Your task to perform on an android device: Go to Yahoo.com Image 0: 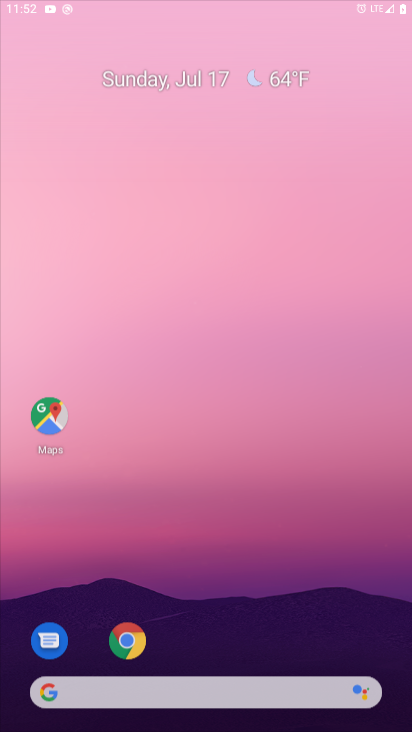
Step 0: press home button
Your task to perform on an android device: Go to Yahoo.com Image 1: 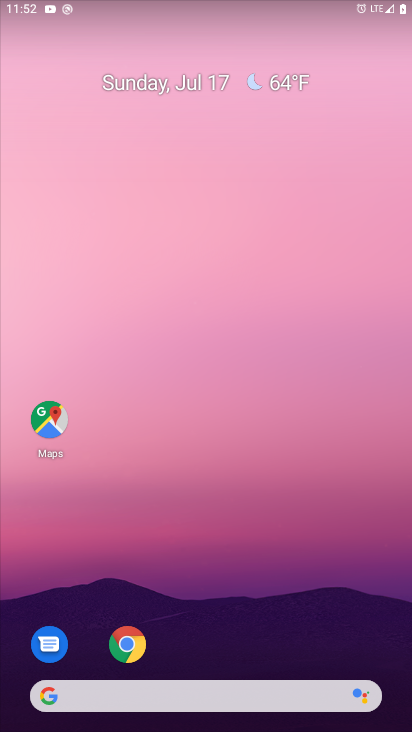
Step 1: click (50, 694)
Your task to perform on an android device: Go to Yahoo.com Image 2: 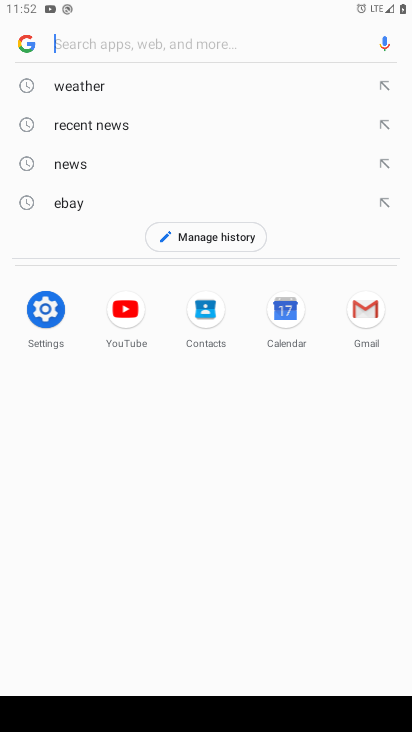
Step 2: type "Yahoo.com"
Your task to perform on an android device: Go to Yahoo.com Image 3: 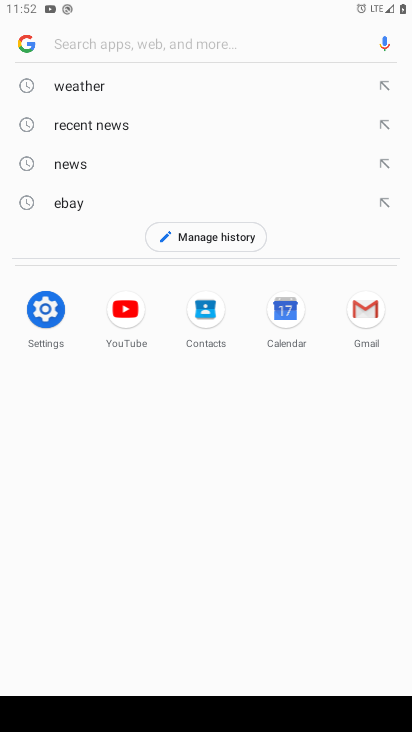
Step 3: click (77, 36)
Your task to perform on an android device: Go to Yahoo.com Image 4: 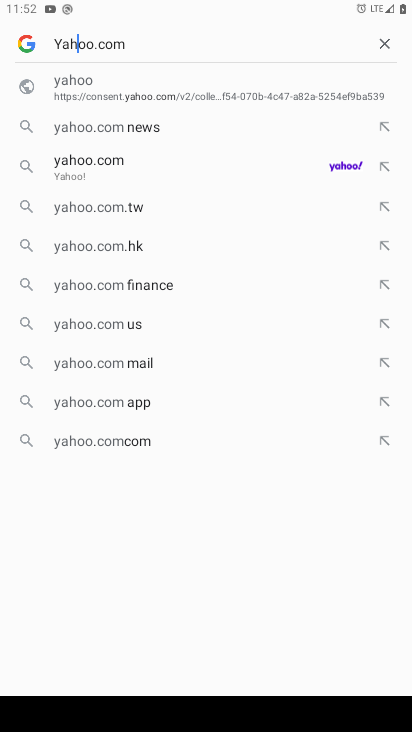
Step 4: press enter
Your task to perform on an android device: Go to Yahoo.com Image 5: 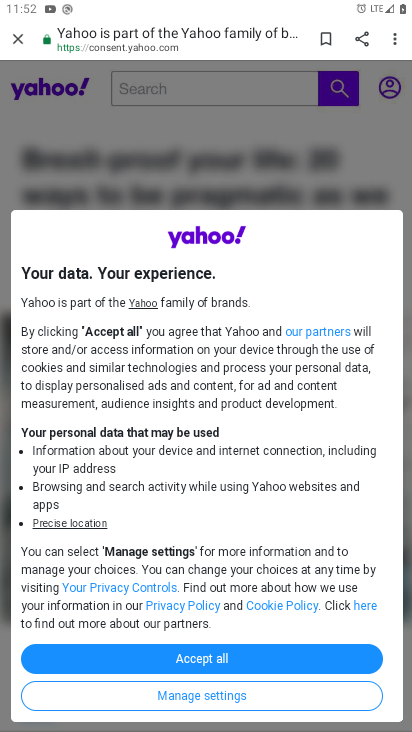
Step 5: click (234, 661)
Your task to perform on an android device: Go to Yahoo.com Image 6: 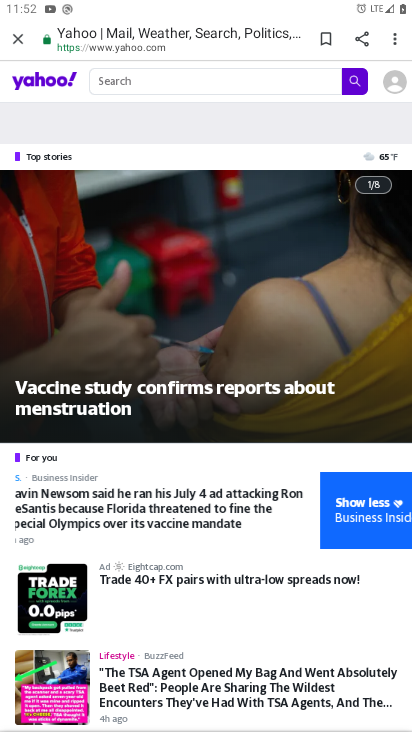
Step 6: task complete